Your task to perform on an android device: search for starred emails in the gmail app Image 0: 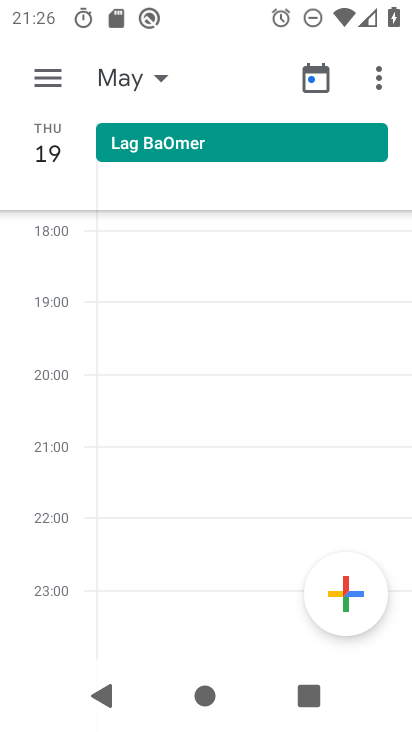
Step 0: press home button
Your task to perform on an android device: search for starred emails in the gmail app Image 1: 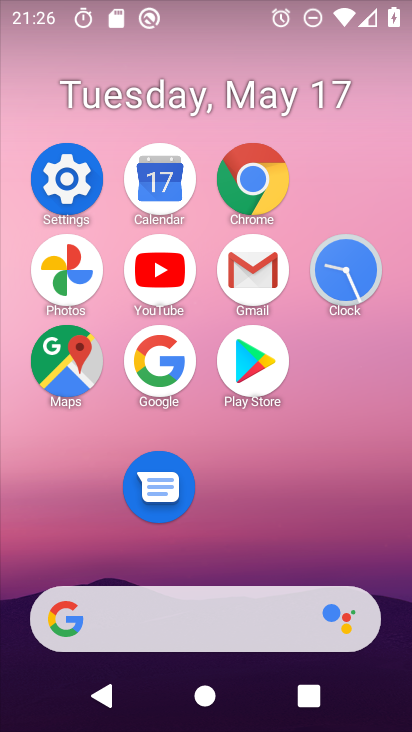
Step 1: click (258, 293)
Your task to perform on an android device: search for starred emails in the gmail app Image 2: 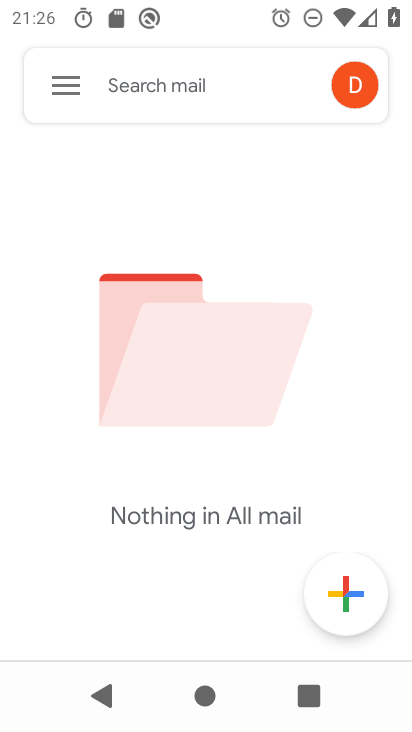
Step 2: click (73, 111)
Your task to perform on an android device: search for starred emails in the gmail app Image 3: 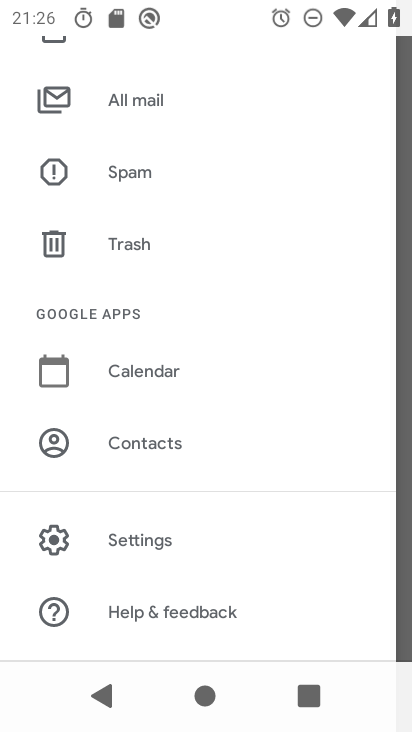
Step 3: click (199, 104)
Your task to perform on an android device: search for starred emails in the gmail app Image 4: 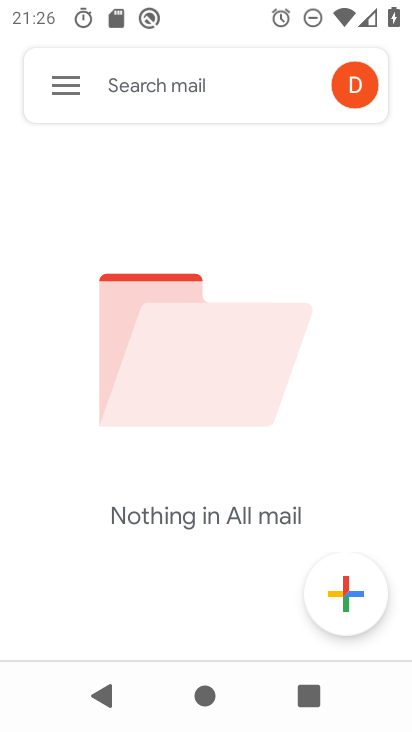
Step 4: task complete